Your task to perform on an android device: turn off priority inbox in the gmail app Image 0: 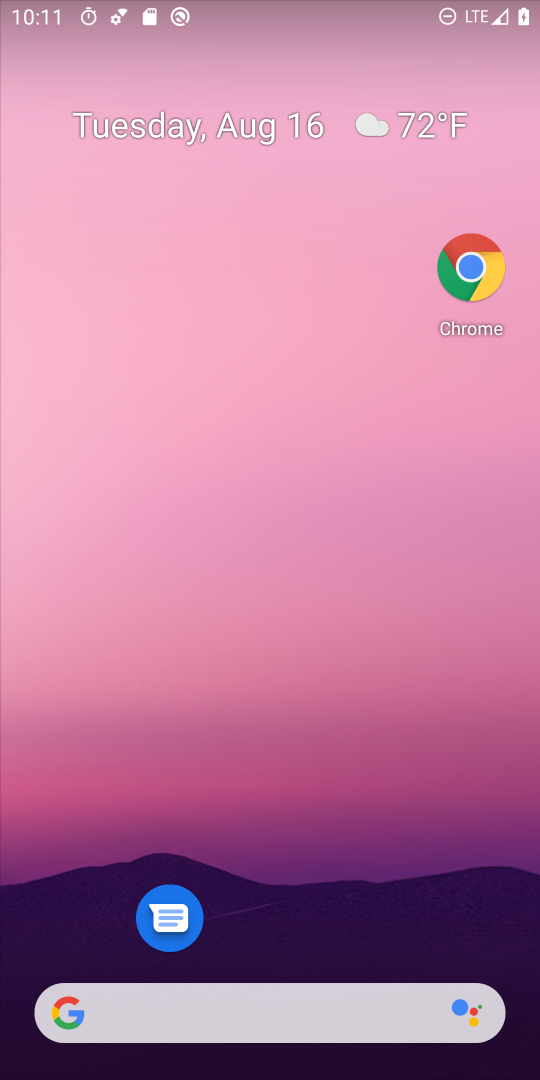
Step 0: drag from (267, 979) to (250, 420)
Your task to perform on an android device: turn off priority inbox in the gmail app Image 1: 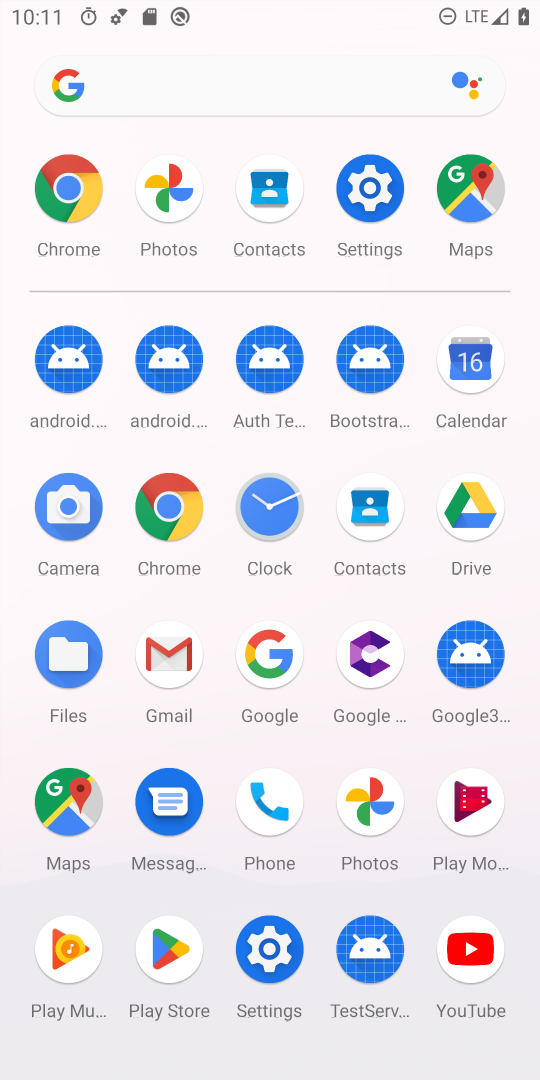
Step 1: click (174, 661)
Your task to perform on an android device: turn off priority inbox in the gmail app Image 2: 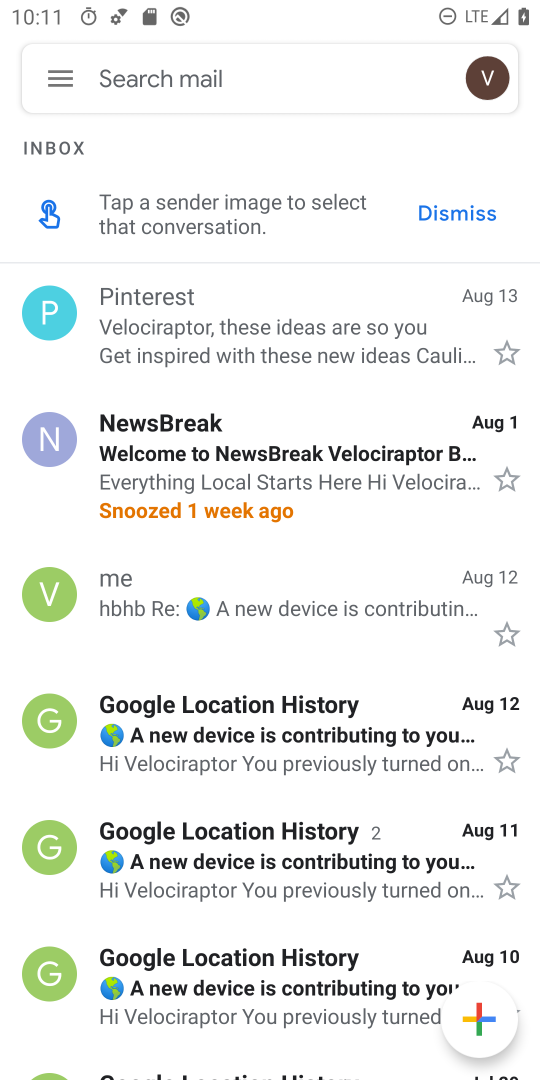
Step 2: click (62, 83)
Your task to perform on an android device: turn off priority inbox in the gmail app Image 3: 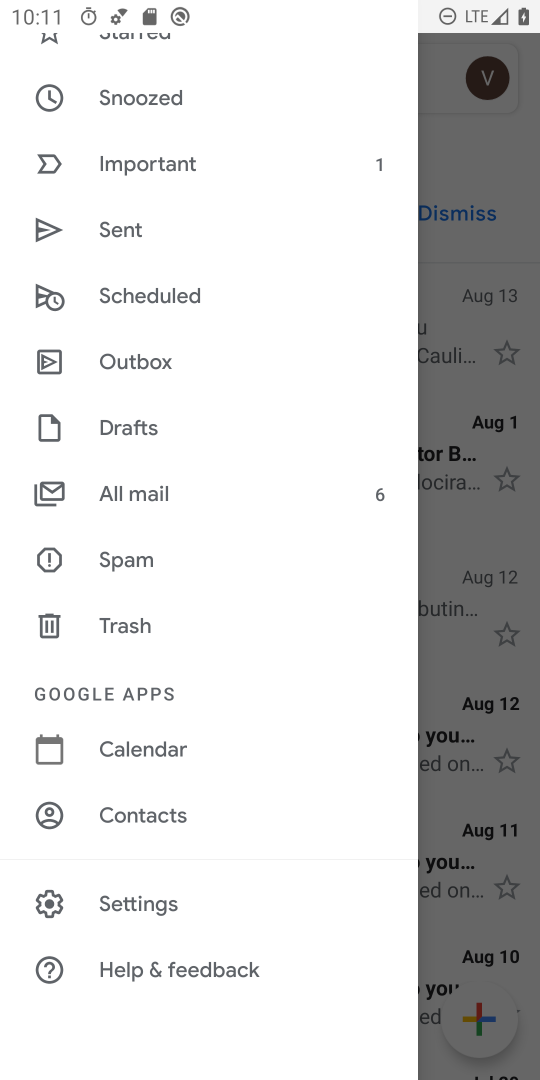
Step 3: click (92, 911)
Your task to perform on an android device: turn off priority inbox in the gmail app Image 4: 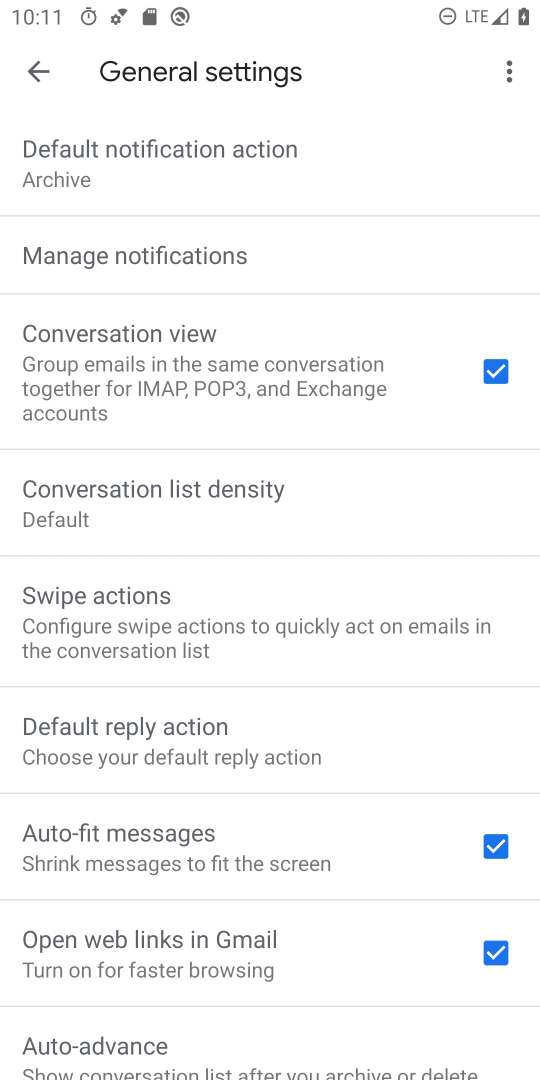
Step 4: click (43, 66)
Your task to perform on an android device: turn off priority inbox in the gmail app Image 5: 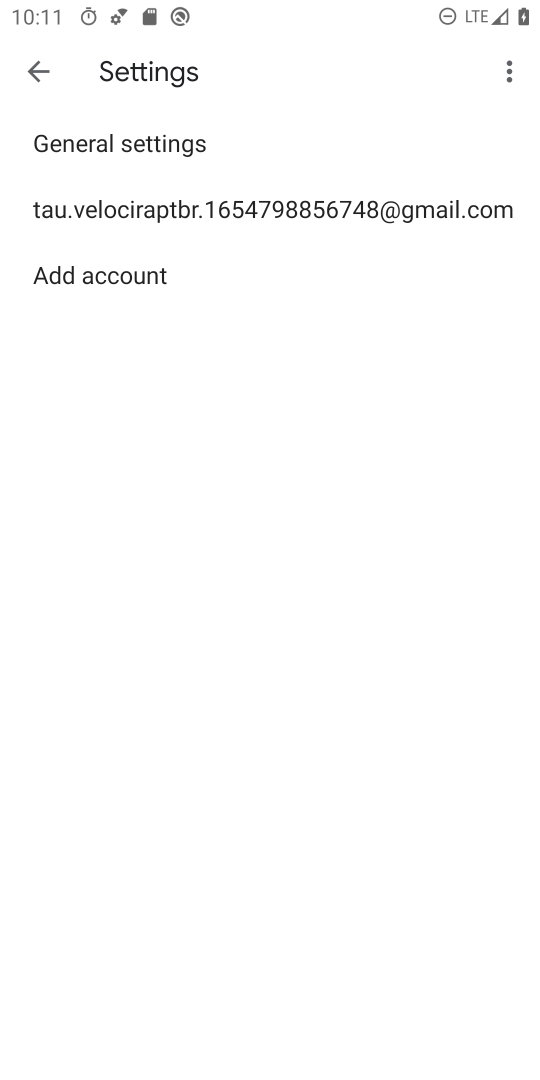
Step 5: click (108, 203)
Your task to perform on an android device: turn off priority inbox in the gmail app Image 6: 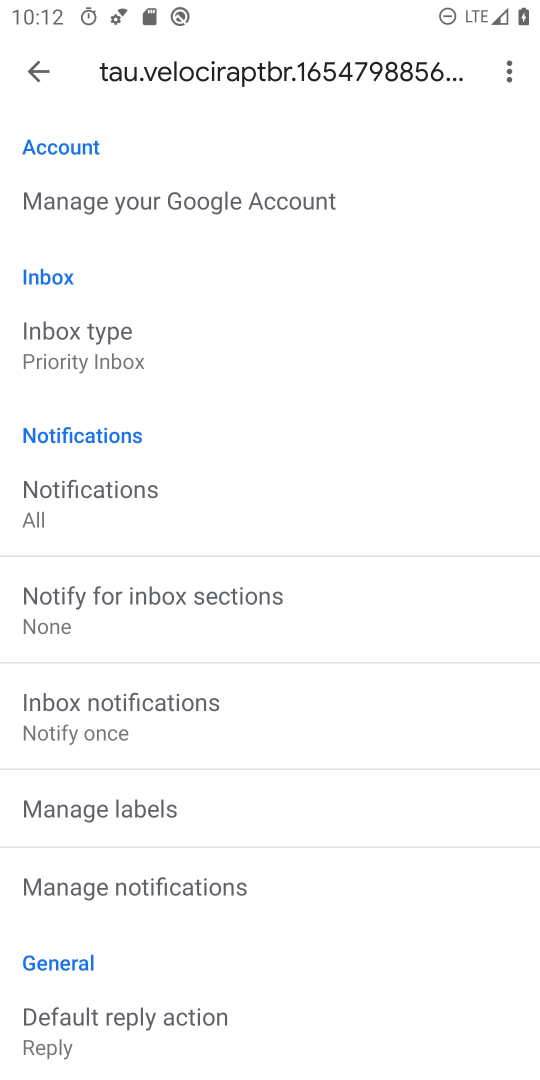
Step 6: click (86, 352)
Your task to perform on an android device: turn off priority inbox in the gmail app Image 7: 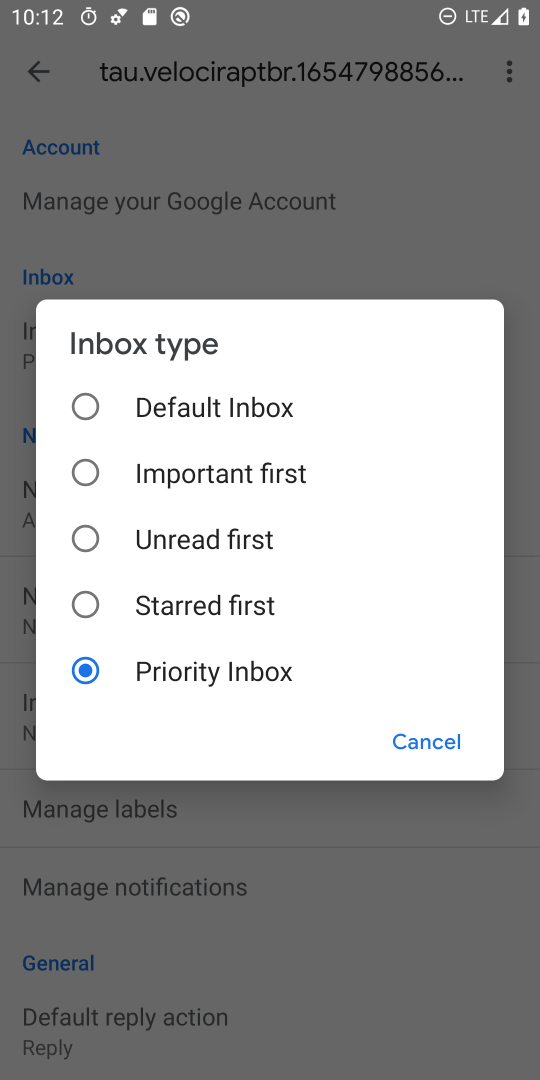
Step 7: click (83, 410)
Your task to perform on an android device: turn off priority inbox in the gmail app Image 8: 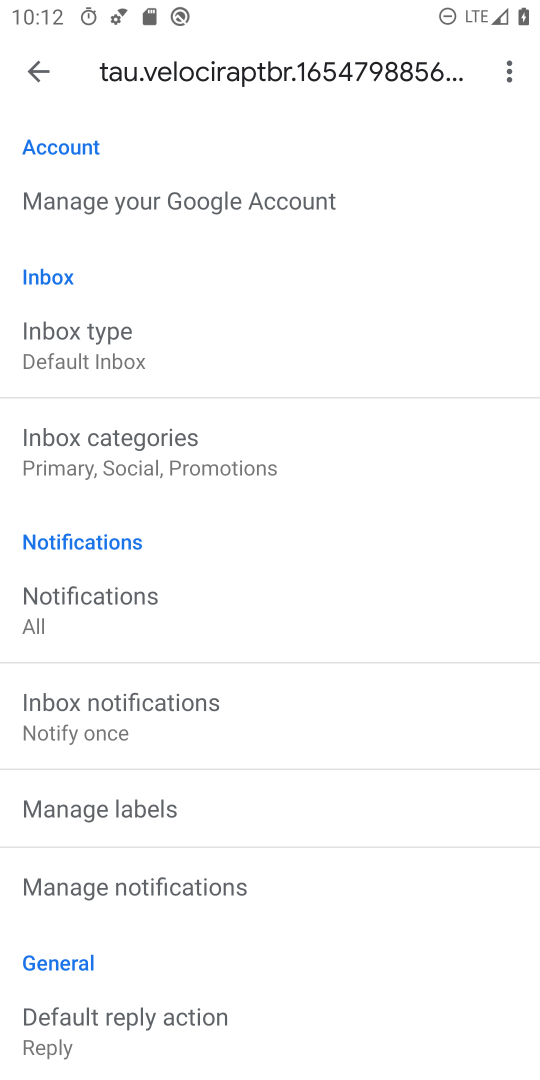
Step 8: task complete